Your task to perform on an android device: Open Reddit.com Image 0: 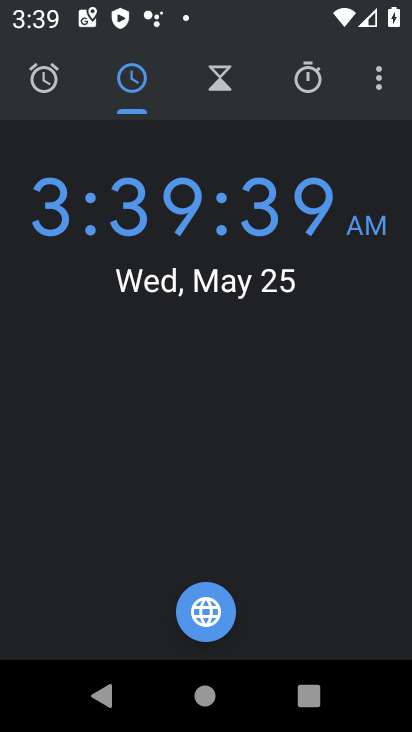
Step 0: press home button
Your task to perform on an android device: Open Reddit.com Image 1: 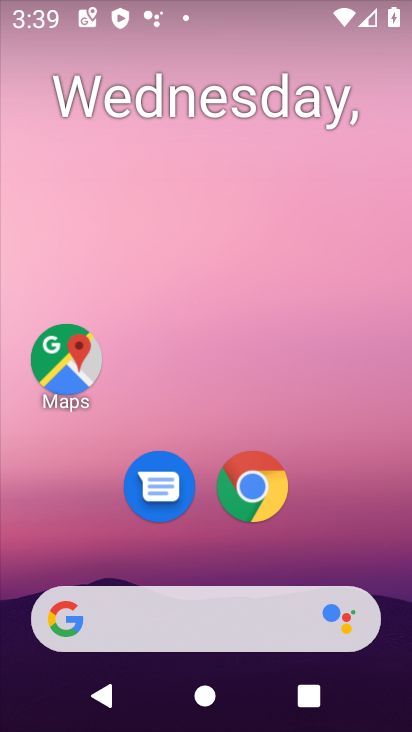
Step 1: drag from (126, 585) to (128, 89)
Your task to perform on an android device: Open Reddit.com Image 2: 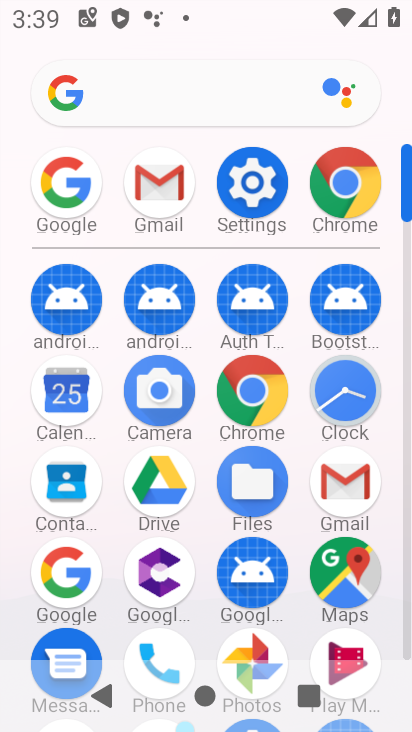
Step 2: click (64, 576)
Your task to perform on an android device: Open Reddit.com Image 3: 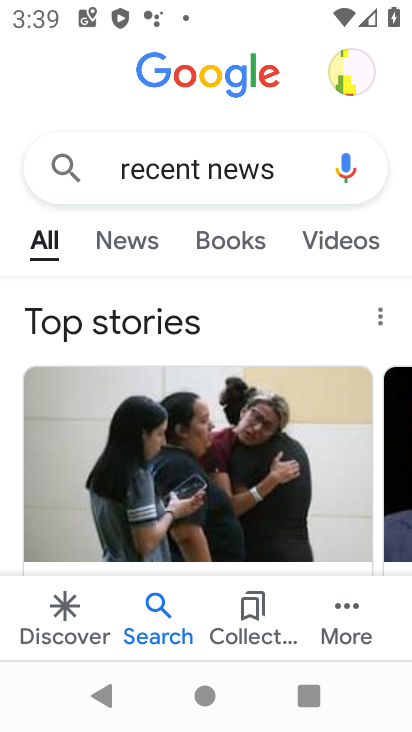
Step 3: click (169, 180)
Your task to perform on an android device: Open Reddit.com Image 4: 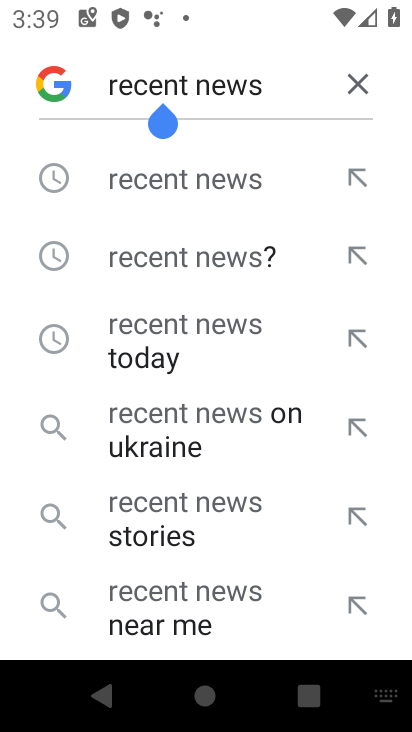
Step 4: click (236, 81)
Your task to perform on an android device: Open Reddit.com Image 5: 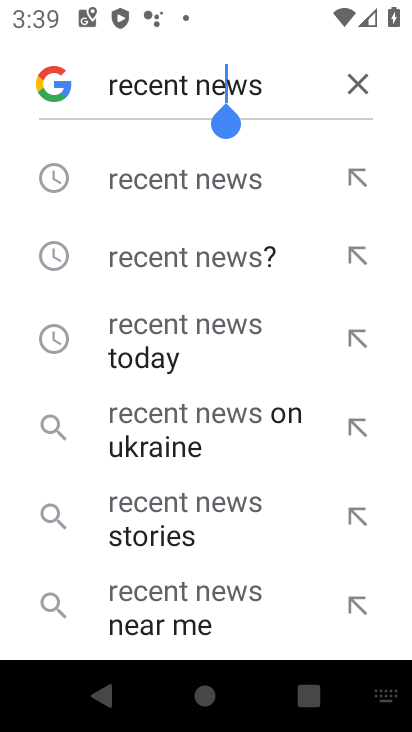
Step 5: click (360, 83)
Your task to perform on an android device: Open Reddit.com Image 6: 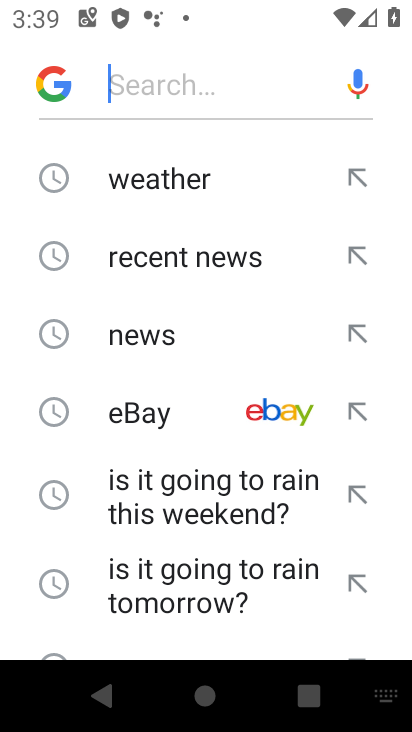
Step 6: drag from (203, 428) to (202, 196)
Your task to perform on an android device: Open Reddit.com Image 7: 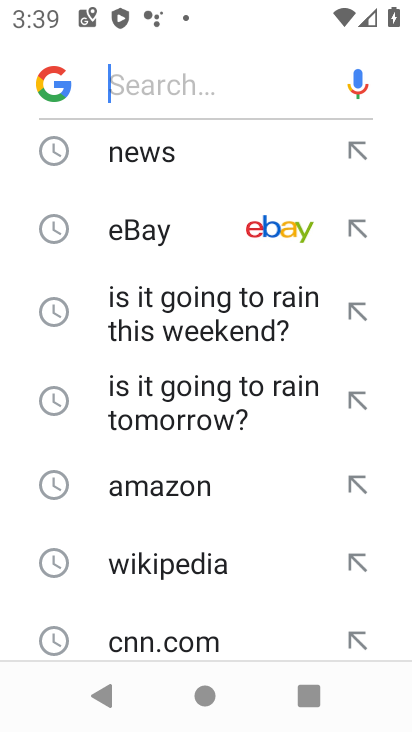
Step 7: drag from (138, 577) to (165, 256)
Your task to perform on an android device: Open Reddit.com Image 8: 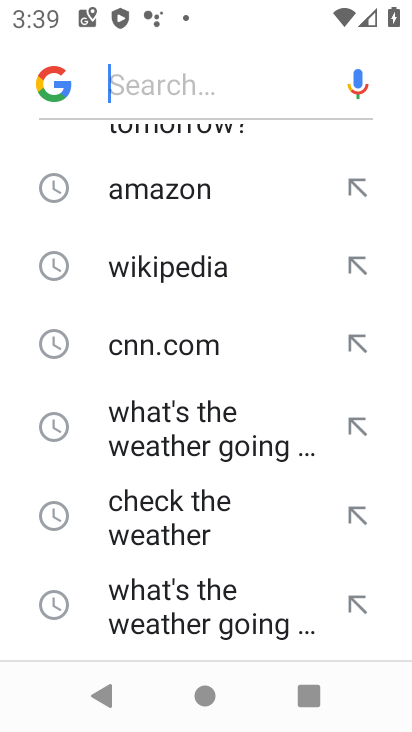
Step 8: drag from (165, 521) to (160, 459)
Your task to perform on an android device: Open Reddit.com Image 9: 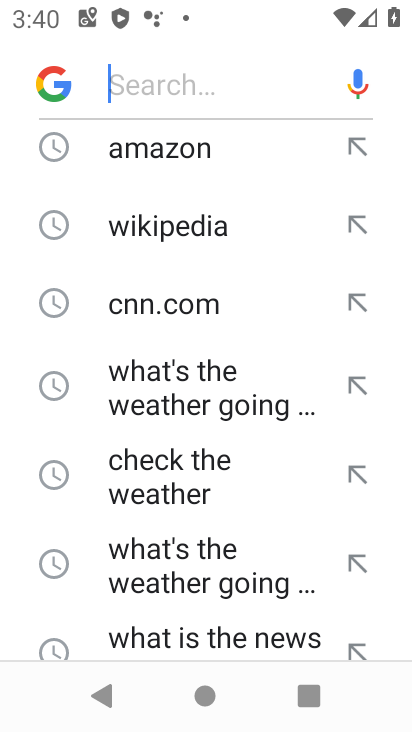
Step 9: drag from (155, 568) to (207, 249)
Your task to perform on an android device: Open Reddit.com Image 10: 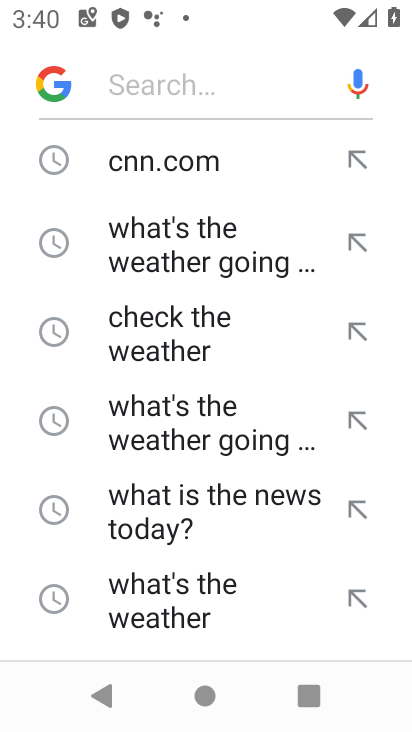
Step 10: drag from (179, 570) to (200, 207)
Your task to perform on an android device: Open Reddit.com Image 11: 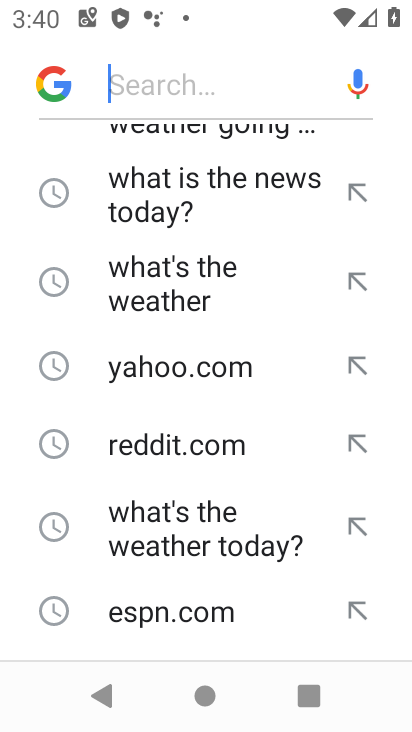
Step 11: click (195, 451)
Your task to perform on an android device: Open Reddit.com Image 12: 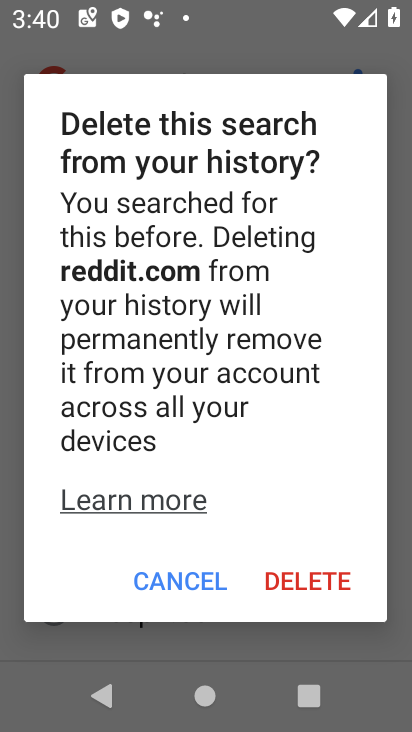
Step 12: click (170, 590)
Your task to perform on an android device: Open Reddit.com Image 13: 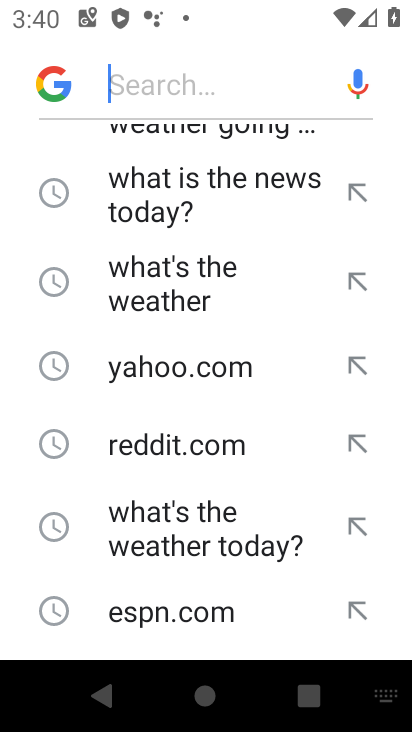
Step 13: click (178, 448)
Your task to perform on an android device: Open Reddit.com Image 14: 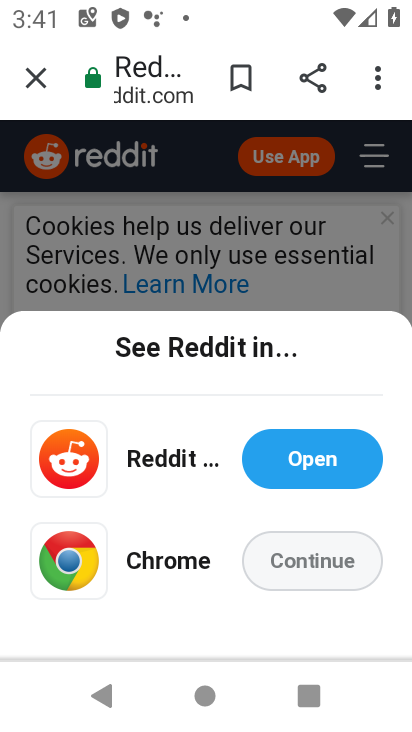
Step 14: click (191, 468)
Your task to perform on an android device: Open Reddit.com Image 15: 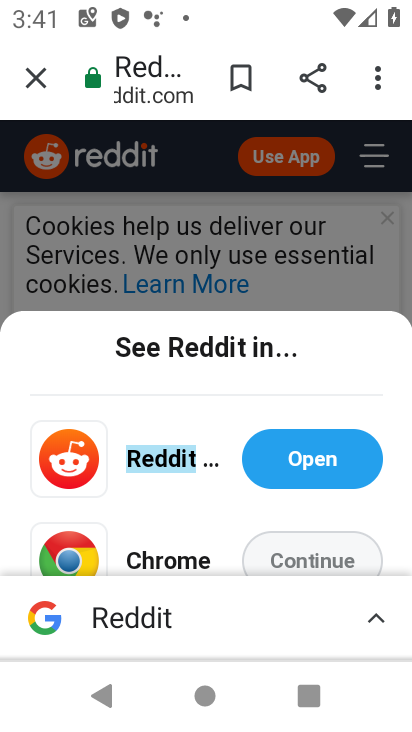
Step 15: click (286, 439)
Your task to perform on an android device: Open Reddit.com Image 16: 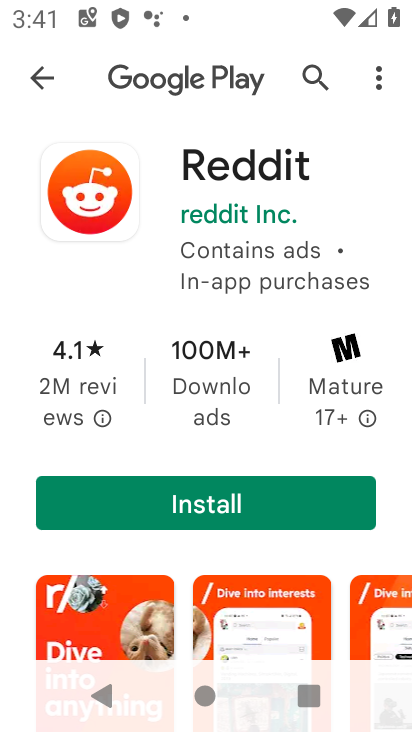
Step 16: task complete